Your task to perform on an android device: turn on data saver in the chrome app Image 0: 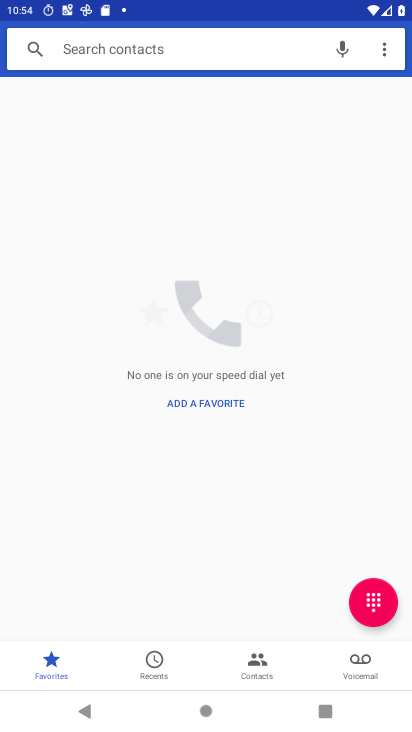
Step 0: press back button
Your task to perform on an android device: turn on data saver in the chrome app Image 1: 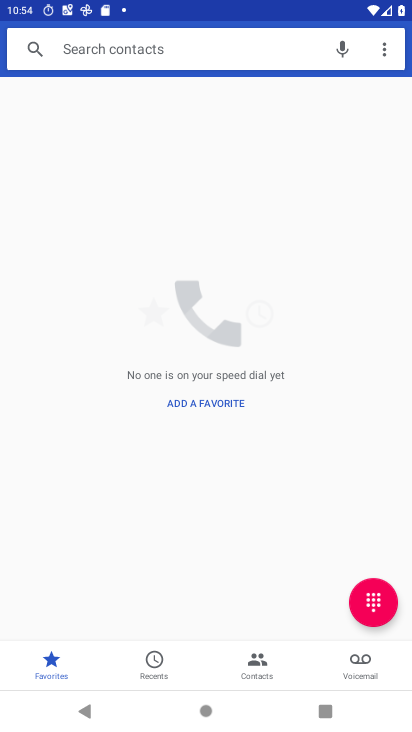
Step 1: press back button
Your task to perform on an android device: turn on data saver in the chrome app Image 2: 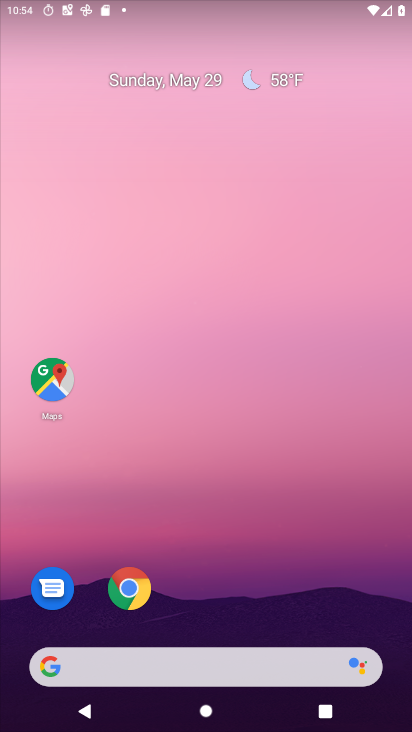
Step 2: press home button
Your task to perform on an android device: turn on data saver in the chrome app Image 3: 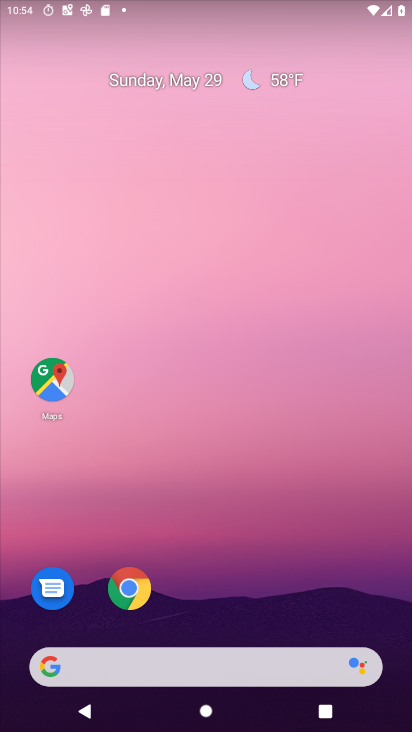
Step 3: drag from (279, 726) to (202, 53)
Your task to perform on an android device: turn on data saver in the chrome app Image 4: 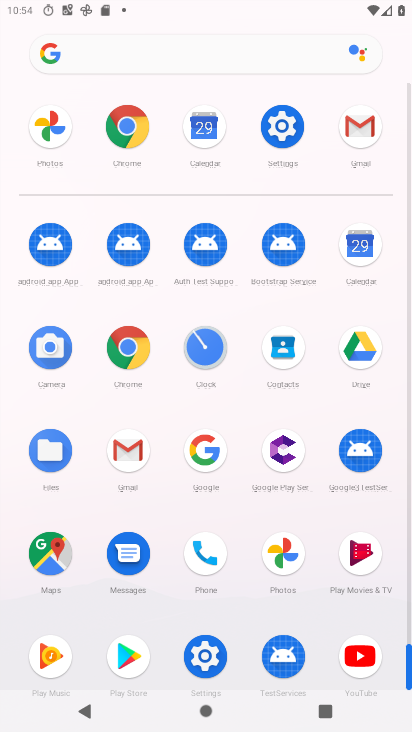
Step 4: click (125, 125)
Your task to perform on an android device: turn on data saver in the chrome app Image 5: 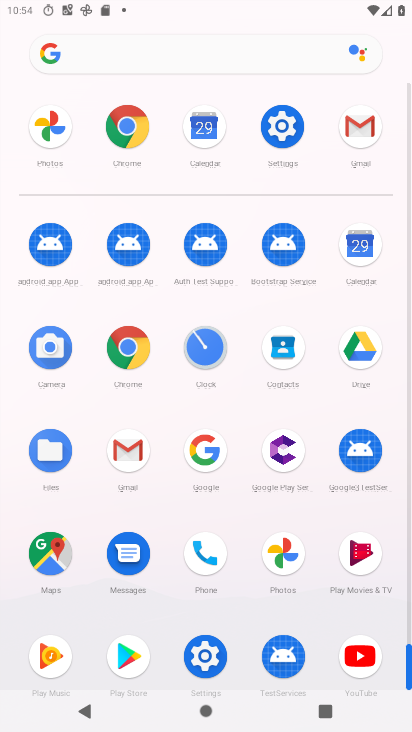
Step 5: click (126, 126)
Your task to perform on an android device: turn on data saver in the chrome app Image 6: 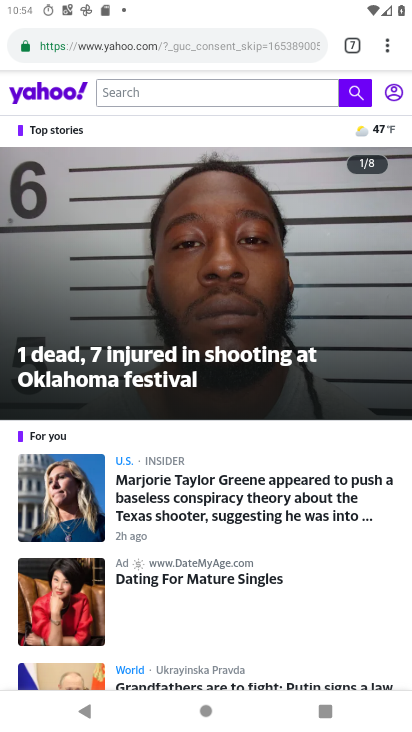
Step 6: drag from (385, 48) to (225, 541)
Your task to perform on an android device: turn on data saver in the chrome app Image 7: 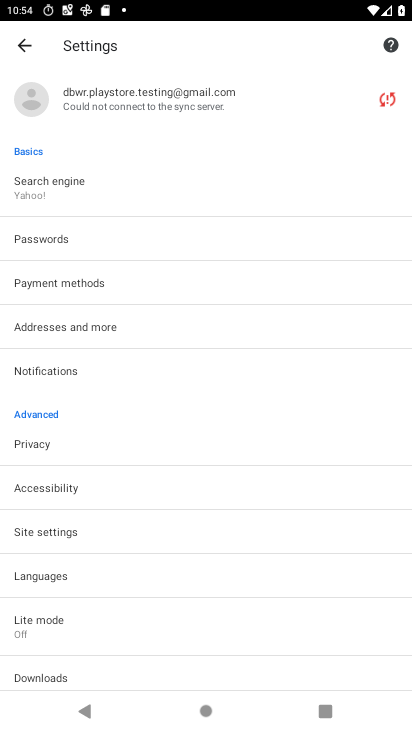
Step 7: click (36, 606)
Your task to perform on an android device: turn on data saver in the chrome app Image 8: 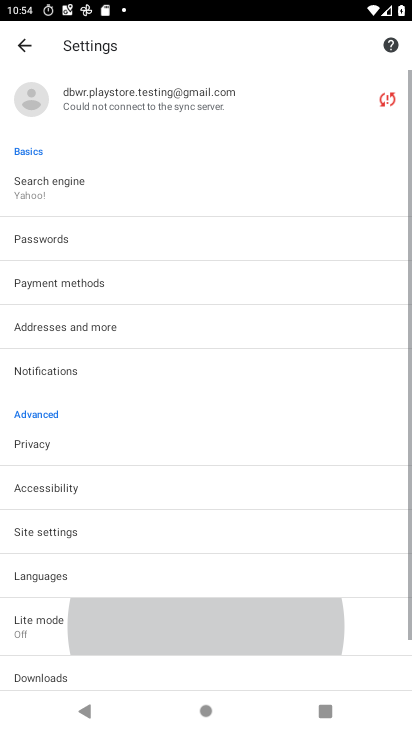
Step 8: click (37, 605)
Your task to perform on an android device: turn on data saver in the chrome app Image 9: 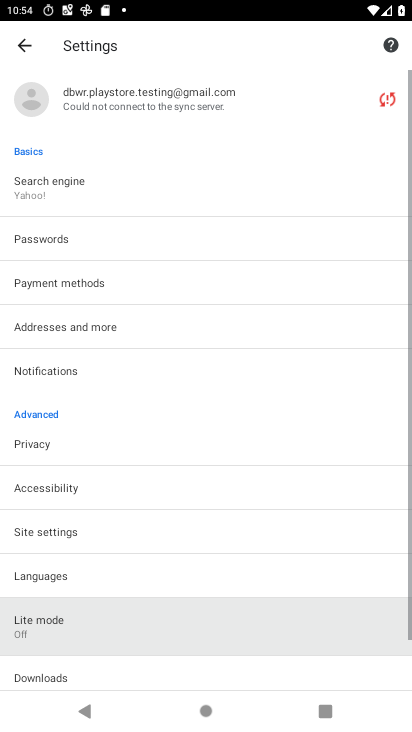
Step 9: click (33, 614)
Your task to perform on an android device: turn on data saver in the chrome app Image 10: 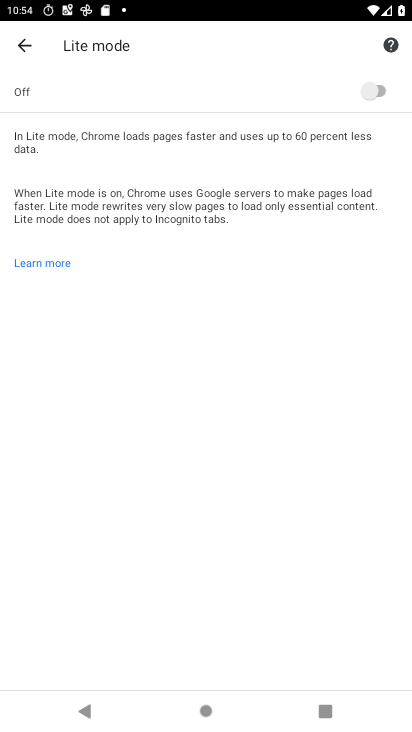
Step 10: click (33, 614)
Your task to perform on an android device: turn on data saver in the chrome app Image 11: 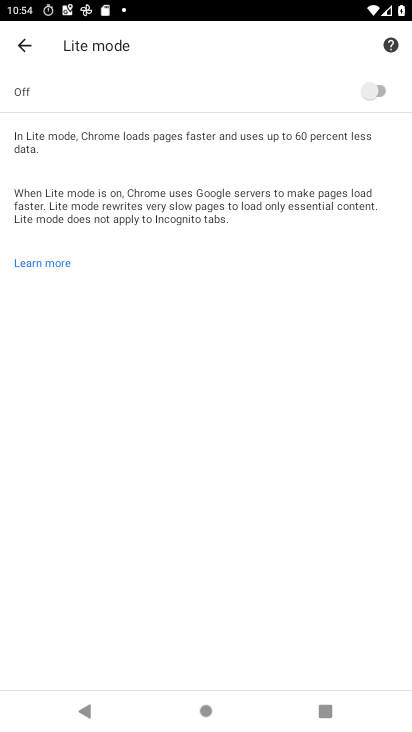
Step 11: click (364, 94)
Your task to perform on an android device: turn on data saver in the chrome app Image 12: 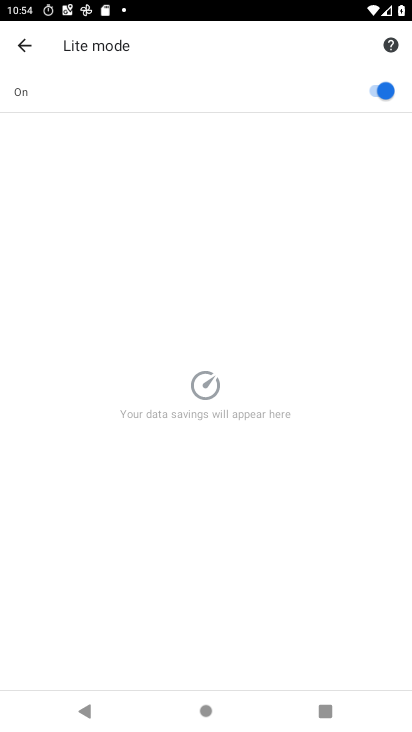
Step 12: task complete